Your task to perform on an android device: delete browsing data in the chrome app Image 0: 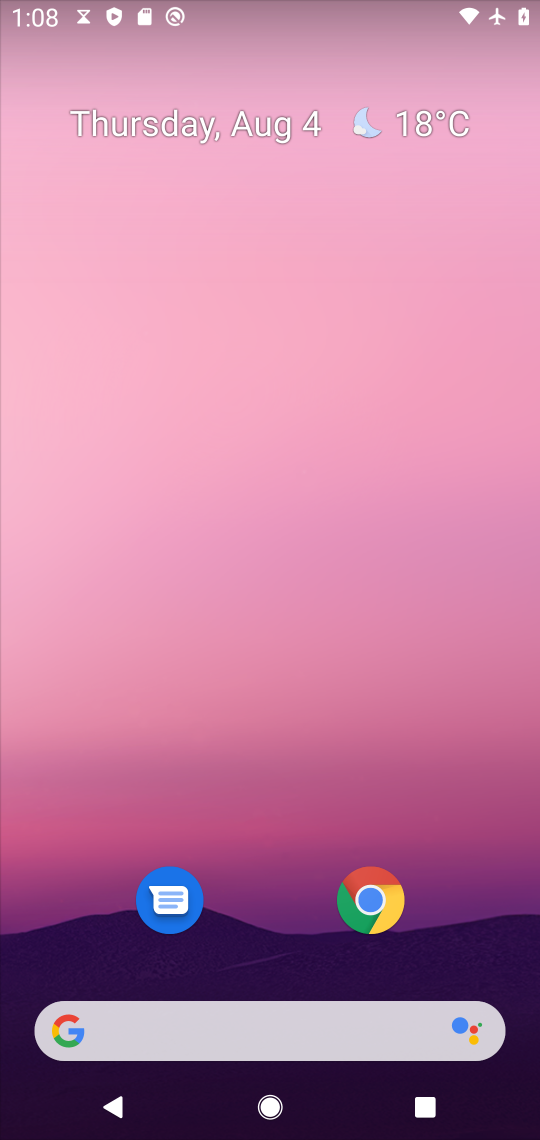
Step 0: press home button
Your task to perform on an android device: delete browsing data in the chrome app Image 1: 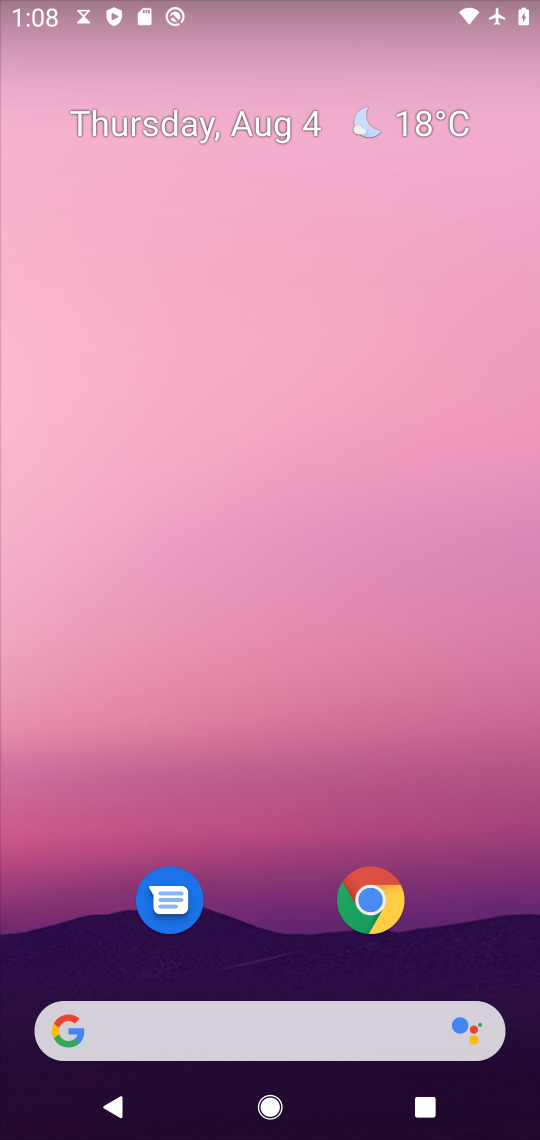
Step 1: click (358, 921)
Your task to perform on an android device: delete browsing data in the chrome app Image 2: 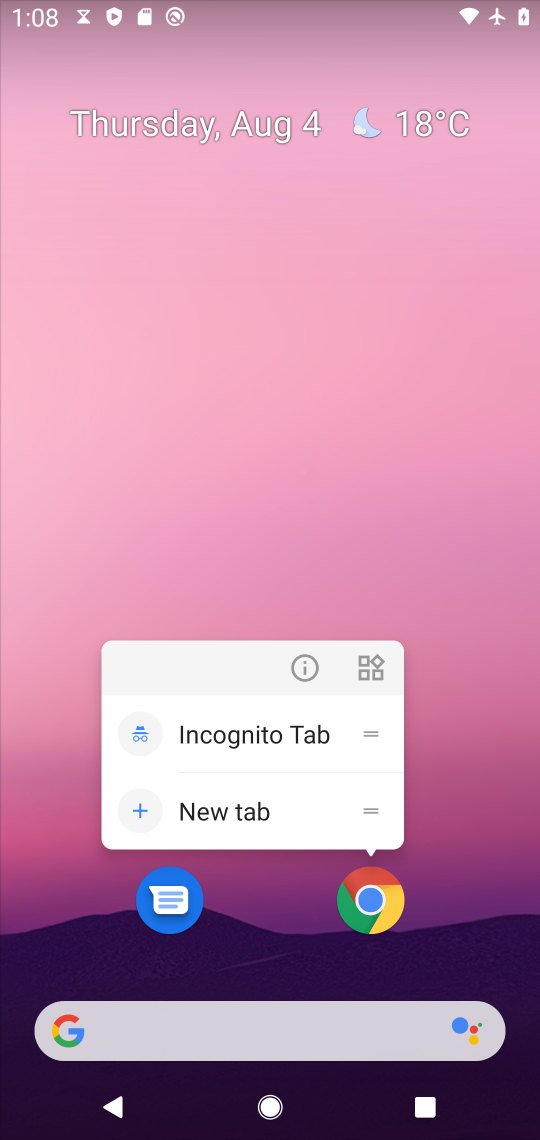
Step 2: click (362, 918)
Your task to perform on an android device: delete browsing data in the chrome app Image 3: 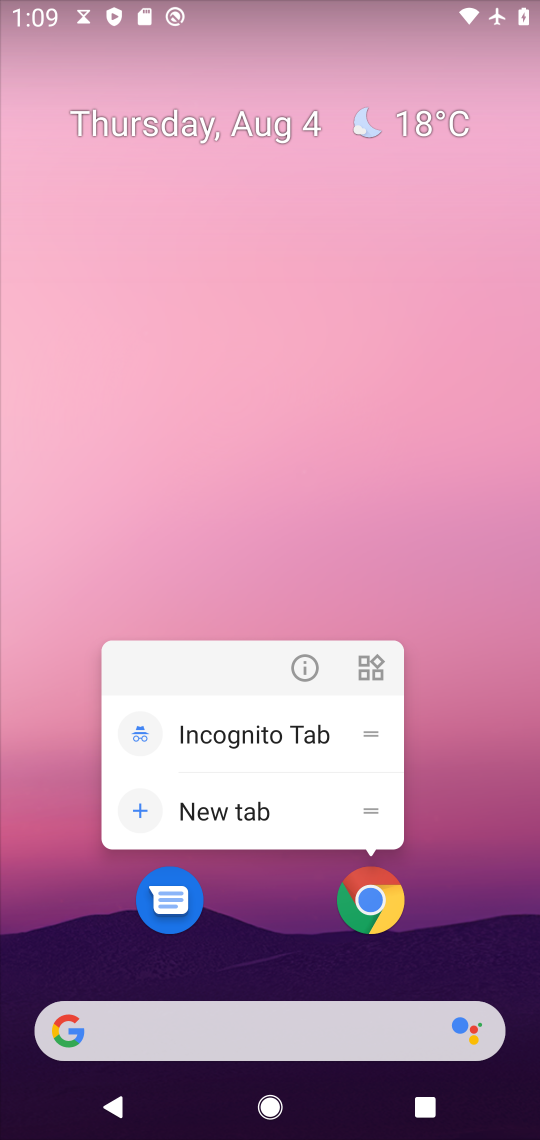
Step 3: click (471, 556)
Your task to perform on an android device: delete browsing data in the chrome app Image 4: 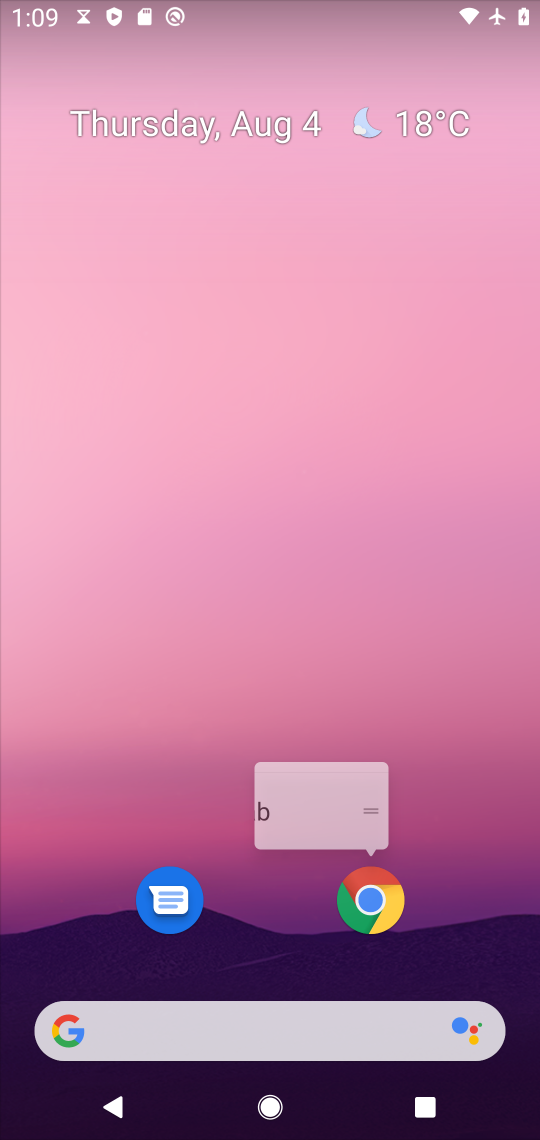
Step 4: click (376, 919)
Your task to perform on an android device: delete browsing data in the chrome app Image 5: 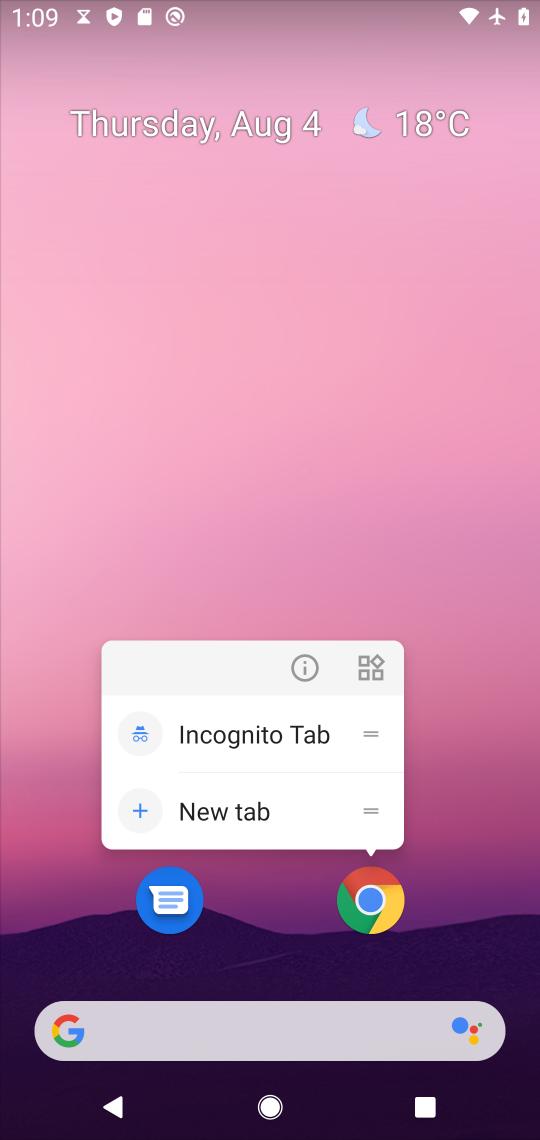
Step 5: click (348, 917)
Your task to perform on an android device: delete browsing data in the chrome app Image 6: 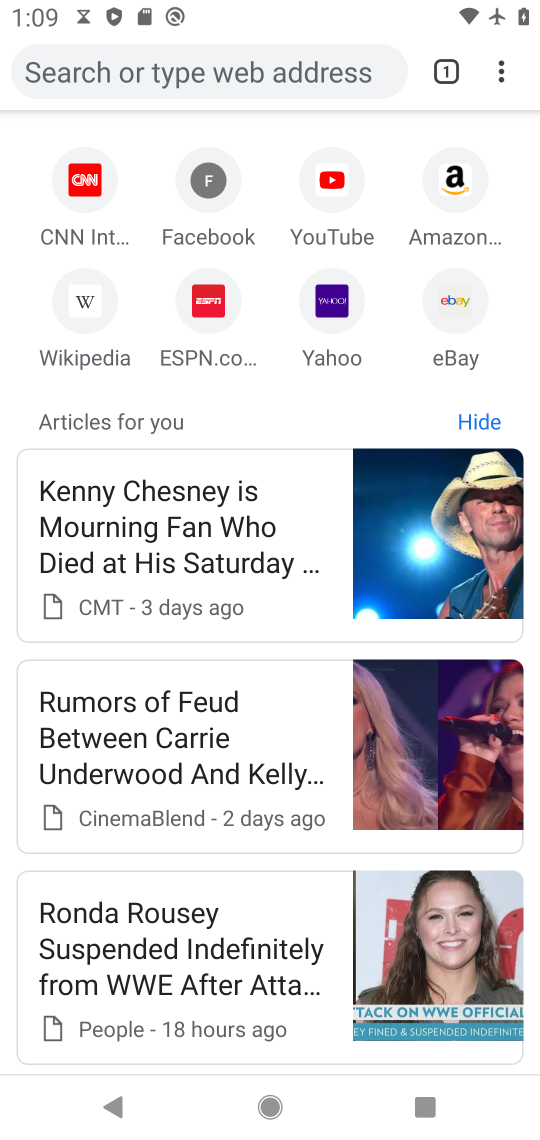
Step 6: click (499, 75)
Your task to perform on an android device: delete browsing data in the chrome app Image 7: 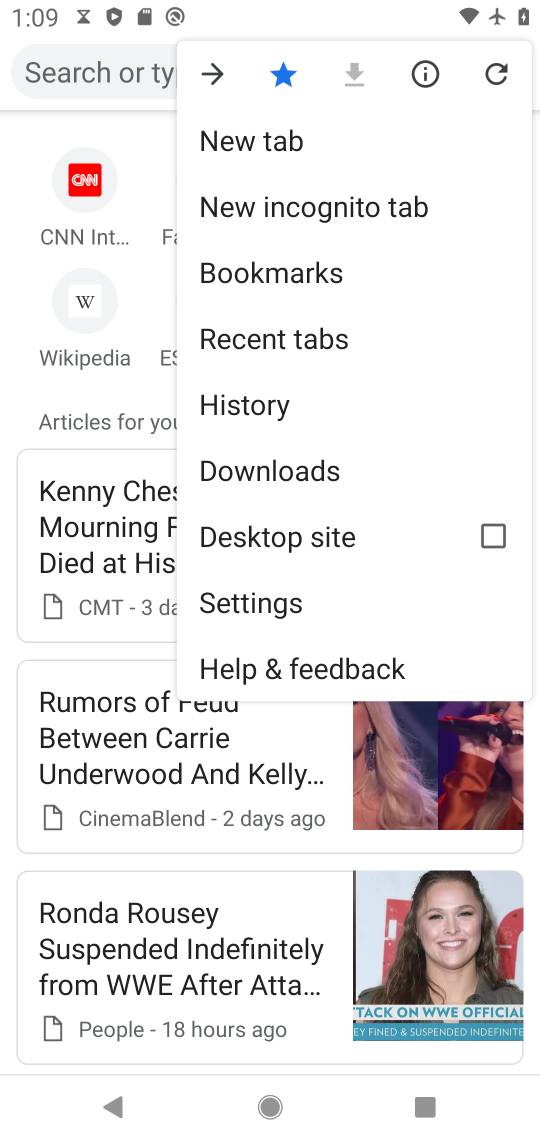
Step 7: click (244, 619)
Your task to perform on an android device: delete browsing data in the chrome app Image 8: 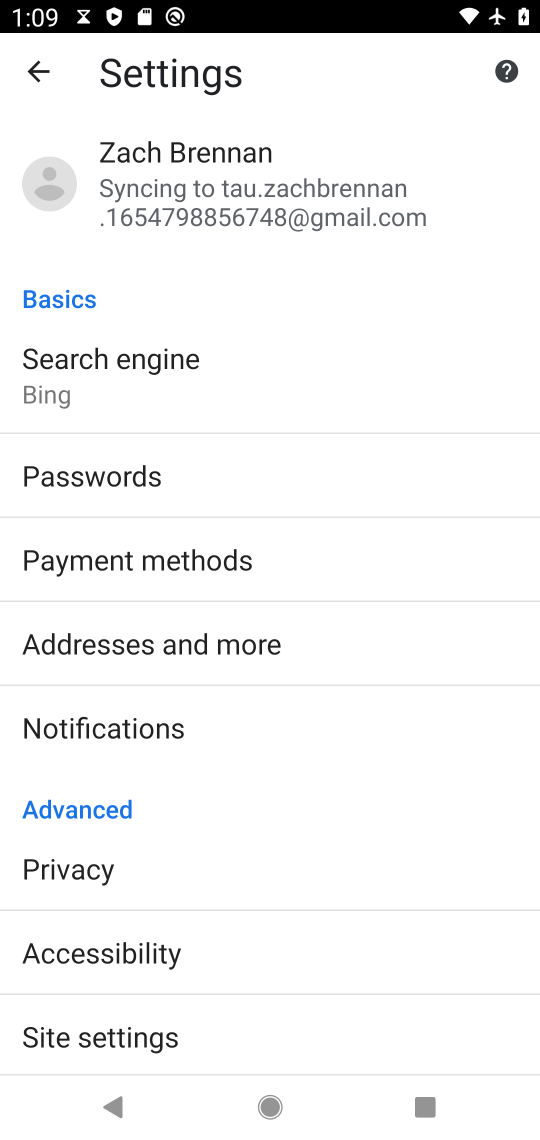
Step 8: click (90, 875)
Your task to perform on an android device: delete browsing data in the chrome app Image 9: 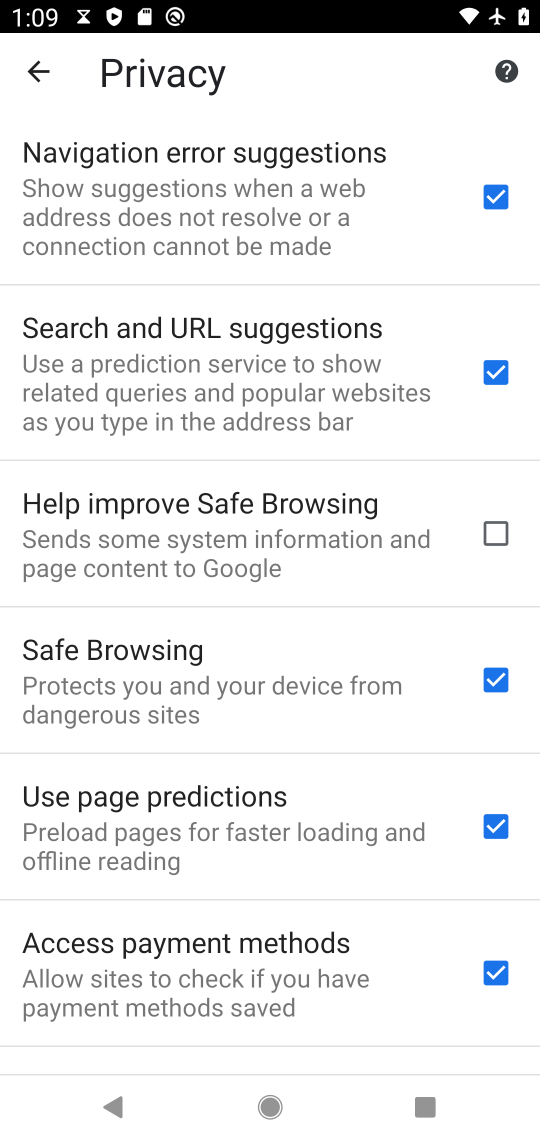
Step 9: drag from (345, 728) to (155, 14)
Your task to perform on an android device: delete browsing data in the chrome app Image 10: 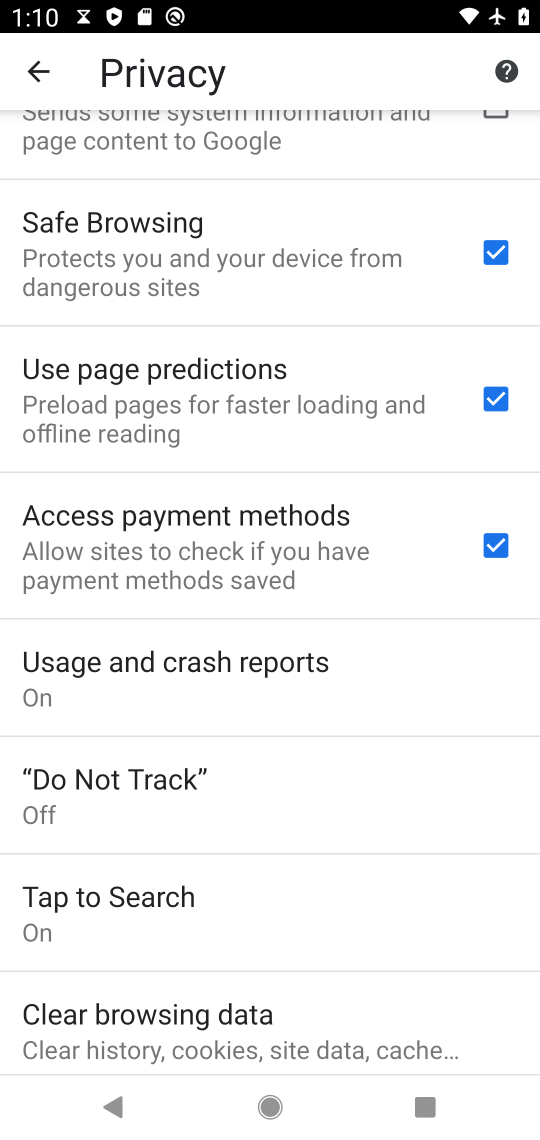
Step 10: click (151, 1017)
Your task to perform on an android device: delete browsing data in the chrome app Image 11: 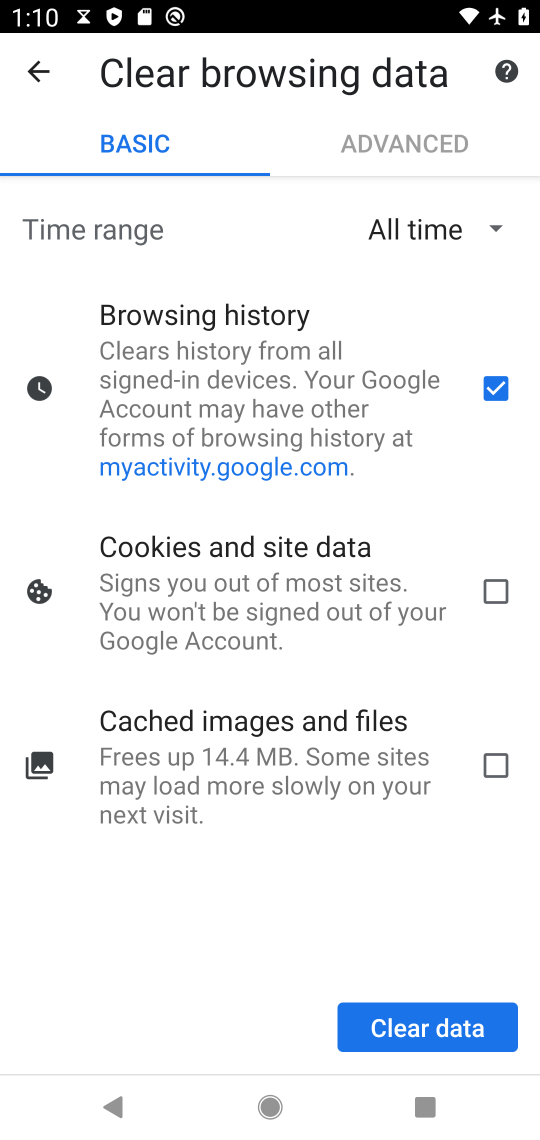
Step 11: click (400, 1022)
Your task to perform on an android device: delete browsing data in the chrome app Image 12: 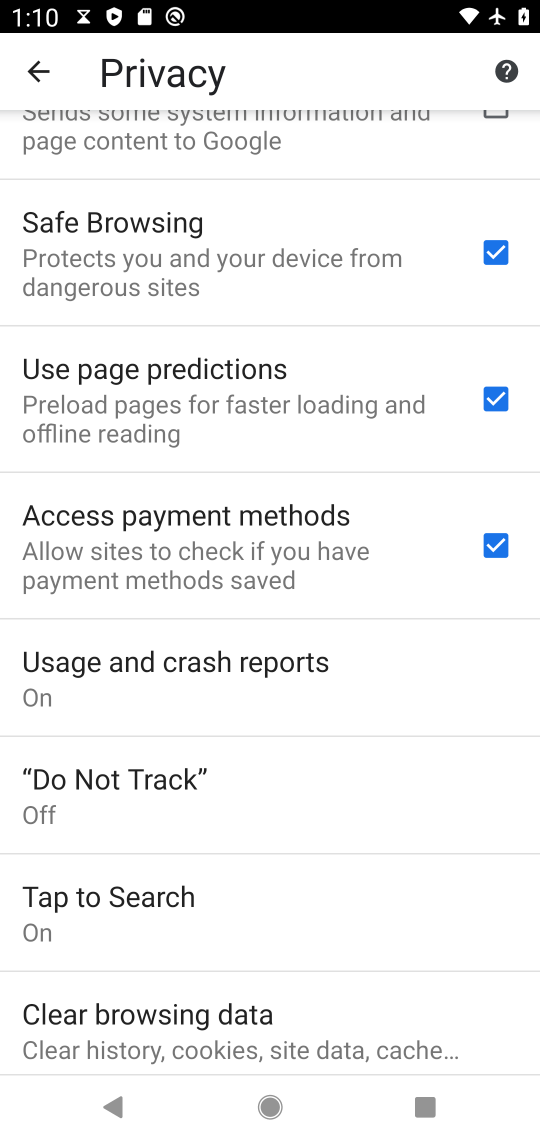
Step 12: task complete